Your task to perform on an android device: toggle airplane mode Image 0: 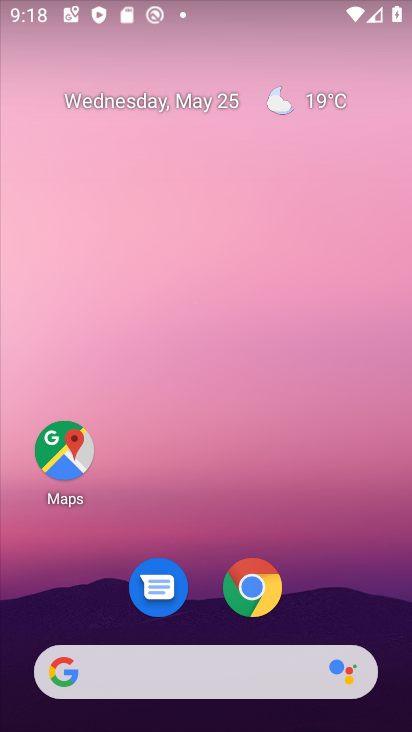
Step 0: drag from (382, 618) to (352, 61)
Your task to perform on an android device: toggle airplane mode Image 1: 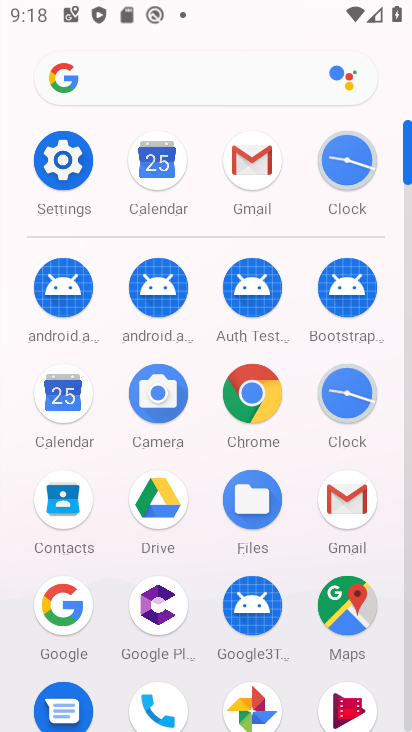
Step 1: click (408, 711)
Your task to perform on an android device: toggle airplane mode Image 2: 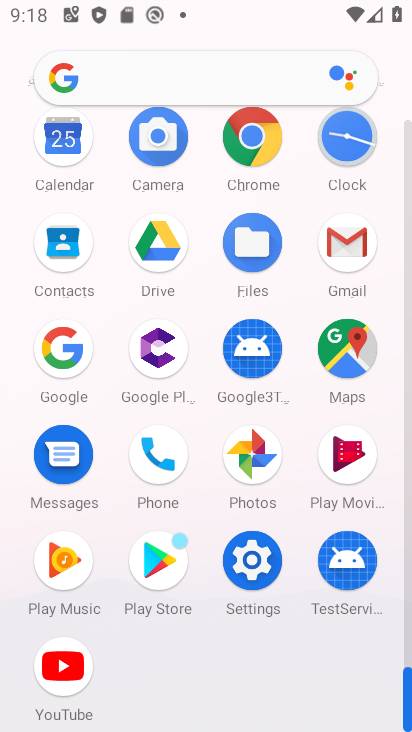
Step 2: click (252, 564)
Your task to perform on an android device: toggle airplane mode Image 3: 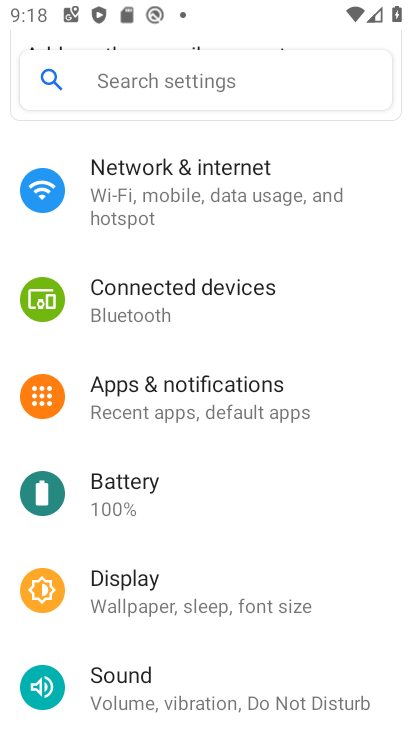
Step 3: click (163, 192)
Your task to perform on an android device: toggle airplane mode Image 4: 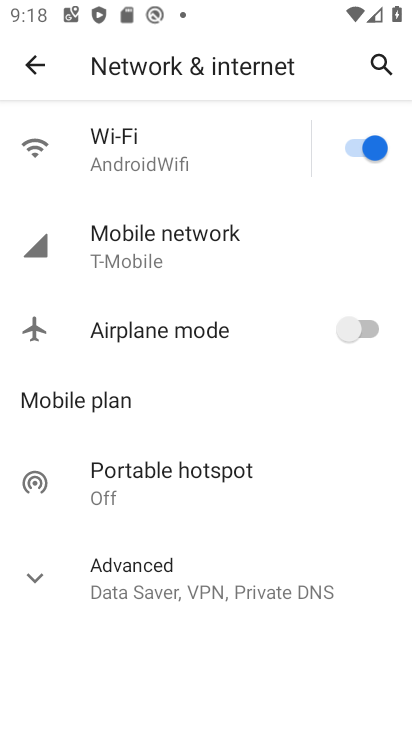
Step 4: click (367, 325)
Your task to perform on an android device: toggle airplane mode Image 5: 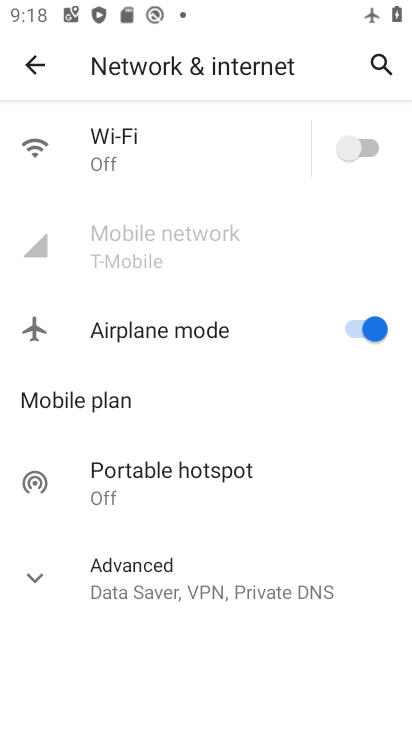
Step 5: task complete